Your task to perform on an android device: turn on improve location accuracy Image 0: 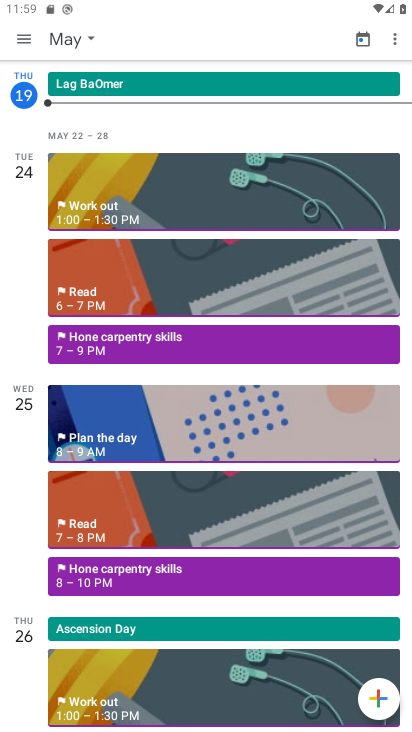
Step 0: press home button
Your task to perform on an android device: turn on improve location accuracy Image 1: 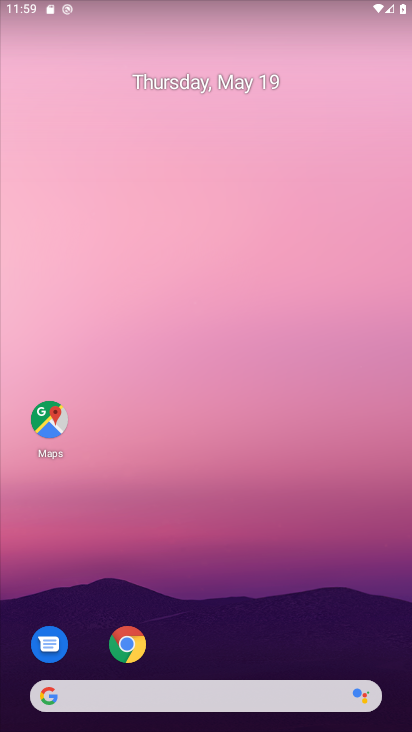
Step 1: drag from (159, 646) to (188, 381)
Your task to perform on an android device: turn on improve location accuracy Image 2: 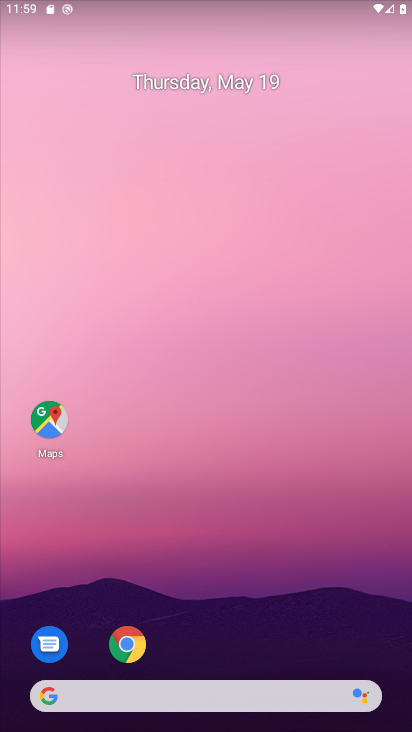
Step 2: drag from (223, 671) to (238, 193)
Your task to perform on an android device: turn on improve location accuracy Image 3: 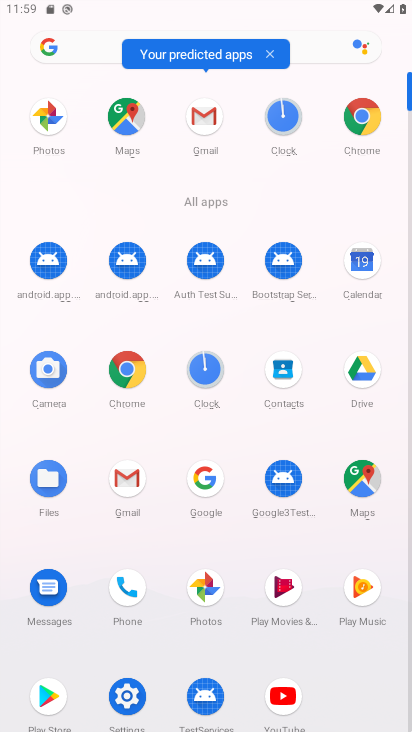
Step 3: click (129, 708)
Your task to perform on an android device: turn on improve location accuracy Image 4: 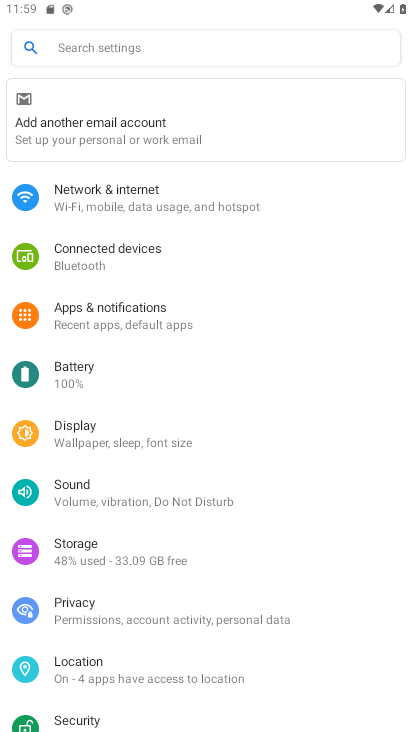
Step 4: click (118, 671)
Your task to perform on an android device: turn on improve location accuracy Image 5: 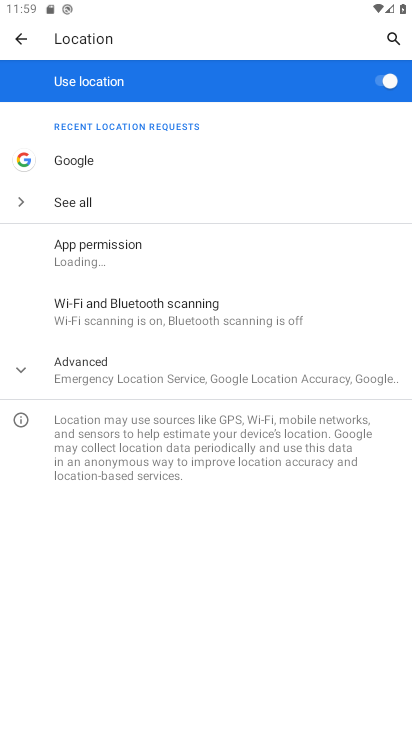
Step 5: click (90, 373)
Your task to perform on an android device: turn on improve location accuracy Image 6: 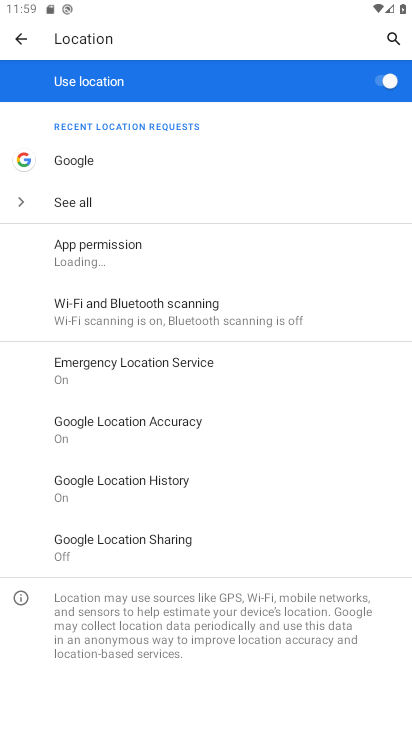
Step 6: click (148, 422)
Your task to perform on an android device: turn on improve location accuracy Image 7: 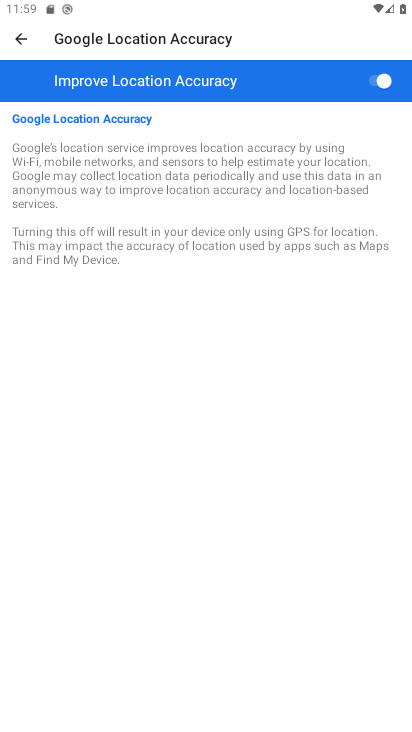
Step 7: task complete